Your task to perform on an android device: What's the weather going to be tomorrow? Image 0: 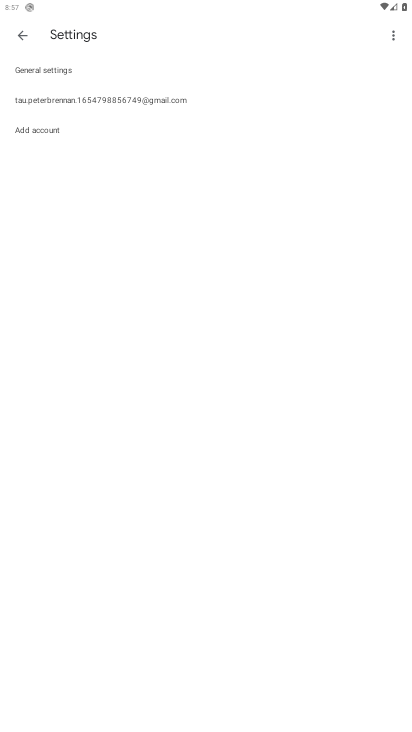
Step 0: click (356, 716)
Your task to perform on an android device: What's the weather going to be tomorrow? Image 1: 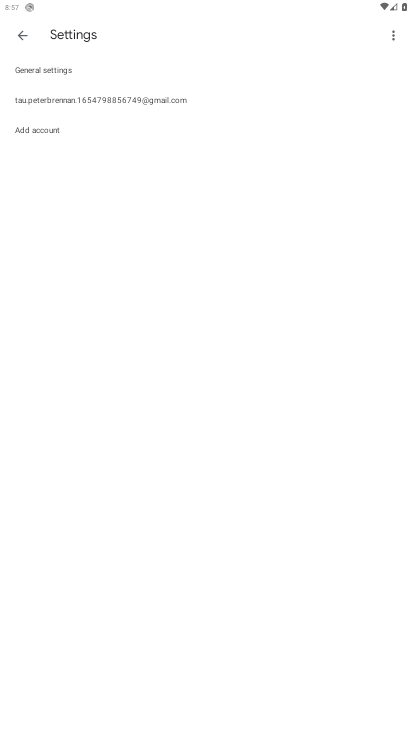
Step 1: press home button
Your task to perform on an android device: What's the weather going to be tomorrow? Image 2: 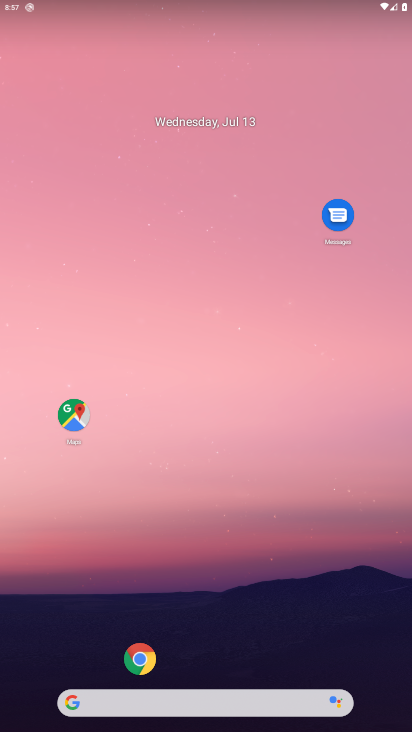
Step 2: click (97, 692)
Your task to perform on an android device: What's the weather going to be tomorrow? Image 3: 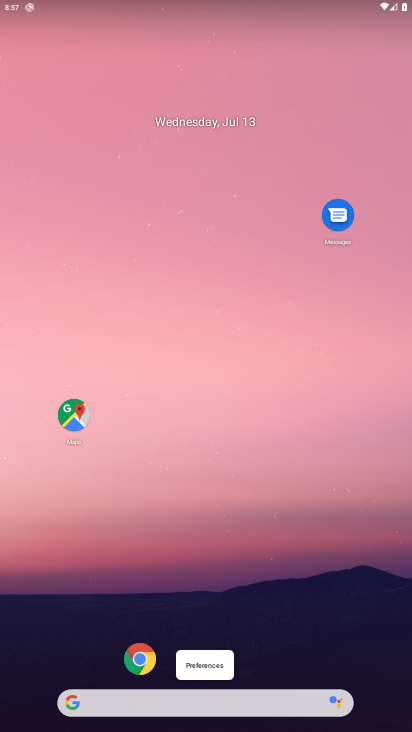
Step 3: click (95, 702)
Your task to perform on an android device: What's the weather going to be tomorrow? Image 4: 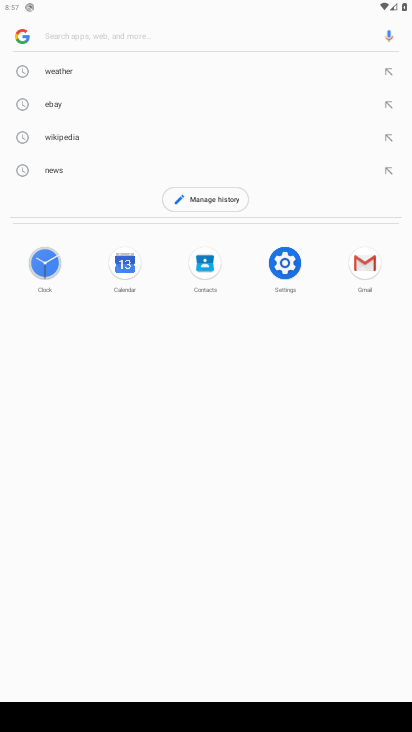
Step 4: type "What's the weather going to be tomorrow?"
Your task to perform on an android device: What's the weather going to be tomorrow? Image 5: 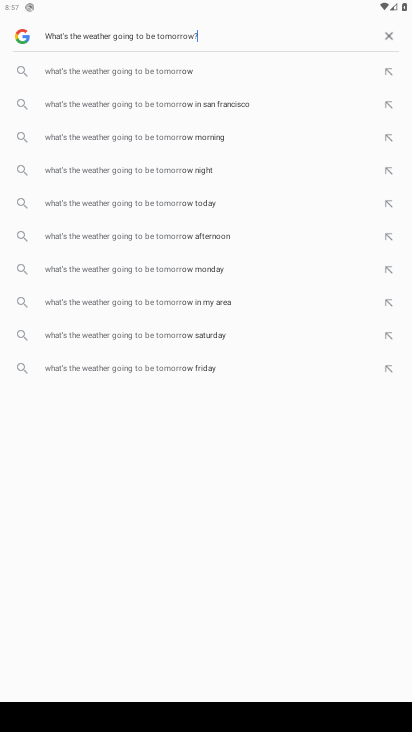
Step 5: type ""
Your task to perform on an android device: What's the weather going to be tomorrow? Image 6: 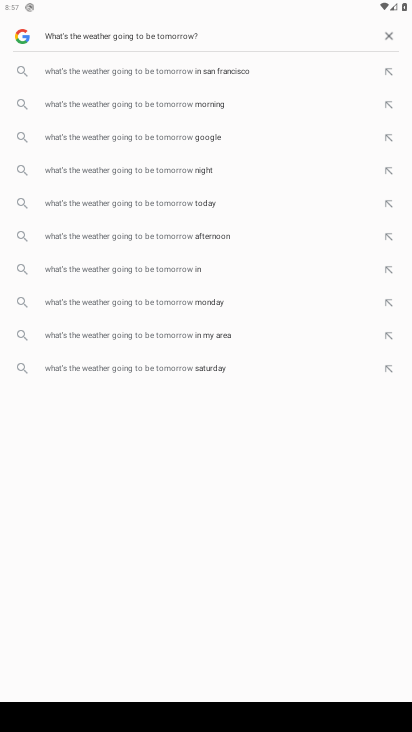
Step 6: type ""
Your task to perform on an android device: What's the weather going to be tomorrow? Image 7: 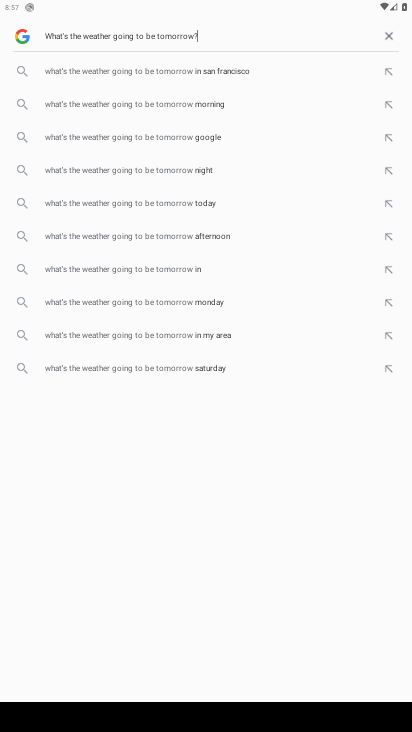
Step 7: type ""
Your task to perform on an android device: What's the weather going to be tomorrow? Image 8: 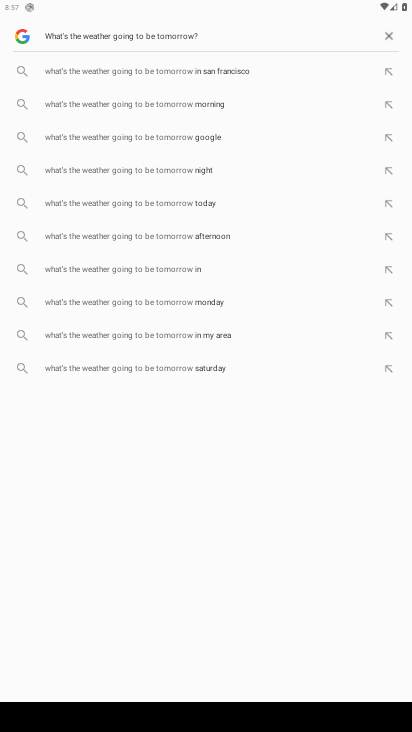
Step 8: task complete